Your task to perform on an android device: all mails in gmail Image 0: 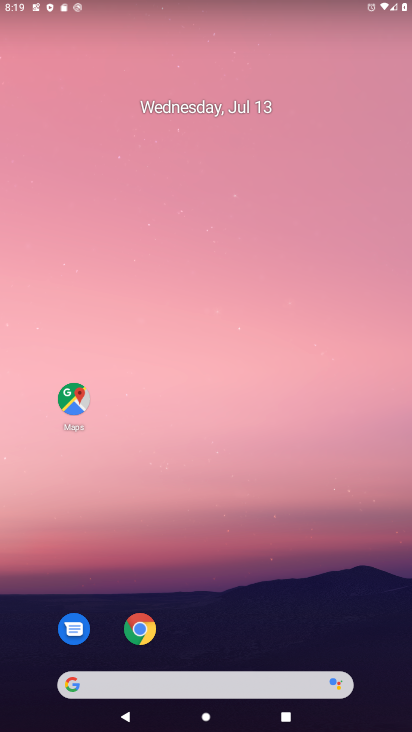
Step 0: drag from (277, 514) to (237, 69)
Your task to perform on an android device: all mails in gmail Image 1: 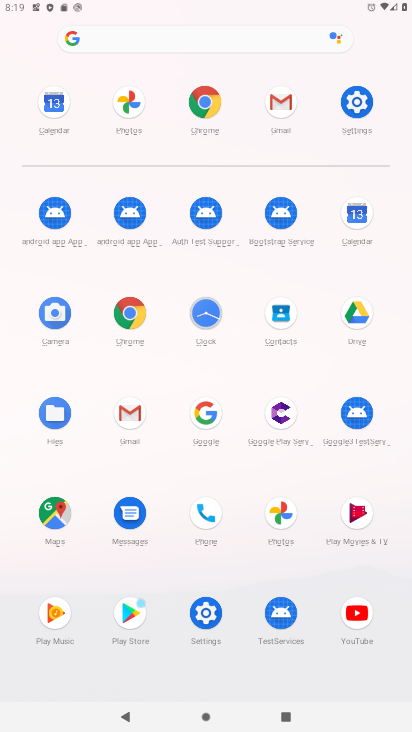
Step 1: click (281, 109)
Your task to perform on an android device: all mails in gmail Image 2: 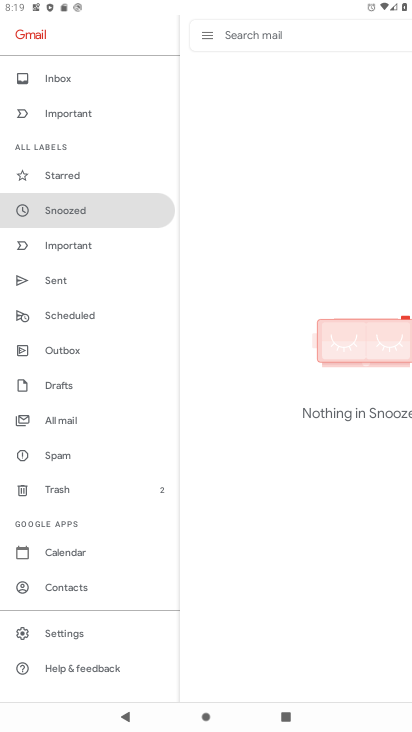
Step 2: click (67, 423)
Your task to perform on an android device: all mails in gmail Image 3: 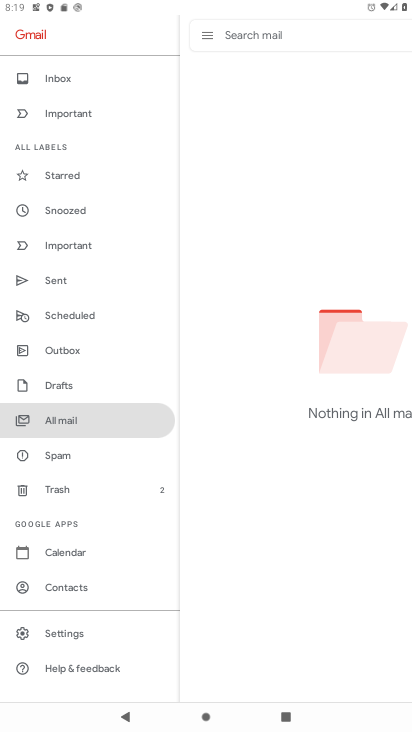
Step 3: task complete